Your task to perform on an android device: delete browsing data in the chrome app Image 0: 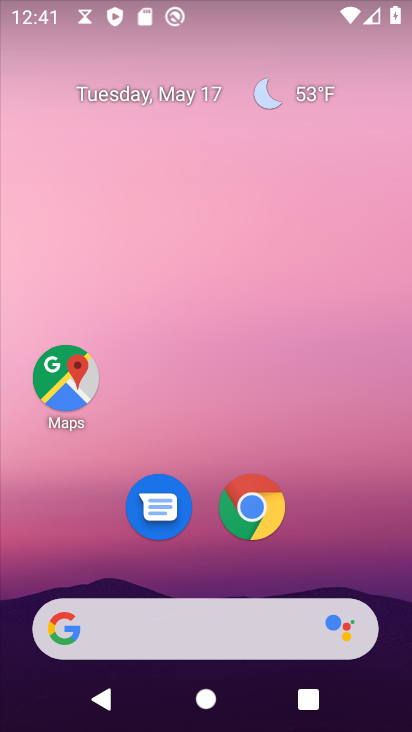
Step 0: click (254, 506)
Your task to perform on an android device: delete browsing data in the chrome app Image 1: 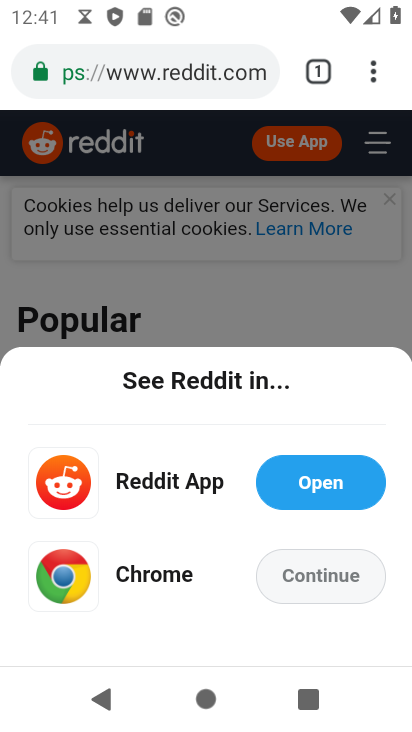
Step 1: click (371, 78)
Your task to perform on an android device: delete browsing data in the chrome app Image 2: 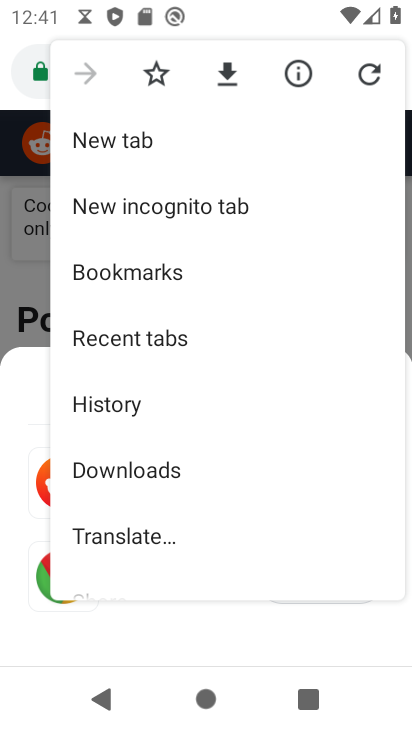
Step 2: click (182, 401)
Your task to perform on an android device: delete browsing data in the chrome app Image 3: 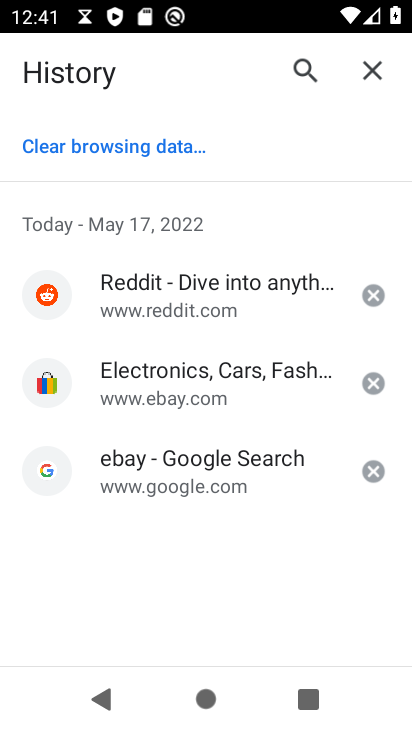
Step 3: click (125, 150)
Your task to perform on an android device: delete browsing data in the chrome app Image 4: 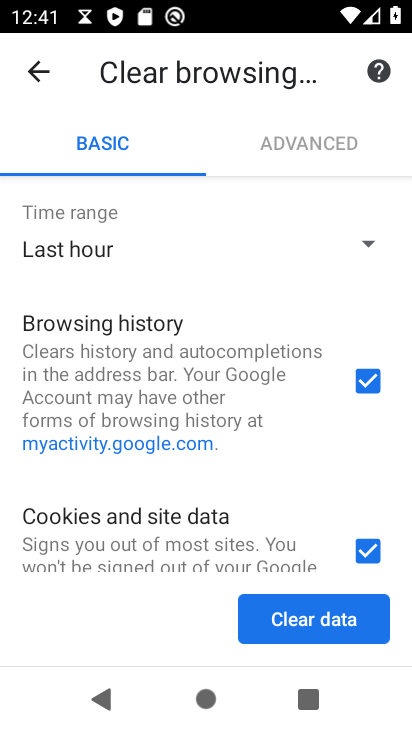
Step 4: click (305, 615)
Your task to perform on an android device: delete browsing data in the chrome app Image 5: 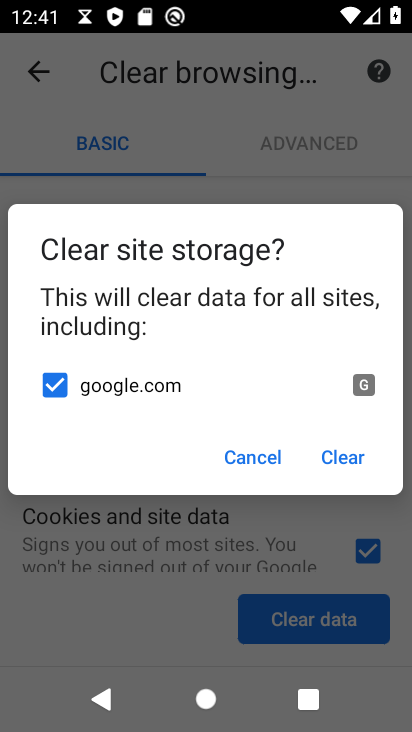
Step 5: click (329, 455)
Your task to perform on an android device: delete browsing data in the chrome app Image 6: 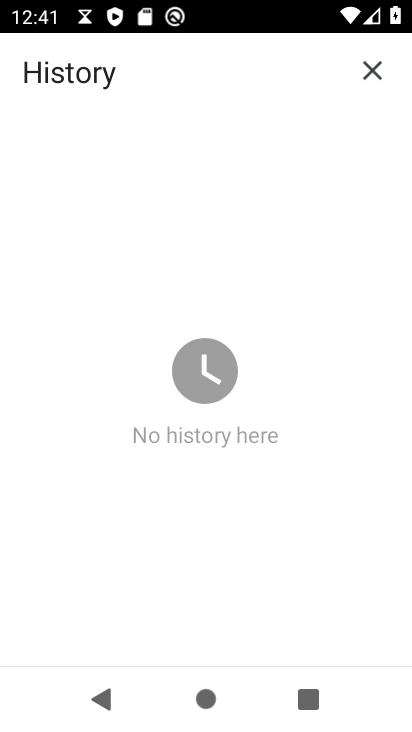
Step 6: task complete